Your task to perform on an android device: turn on notifications settings in the gmail app Image 0: 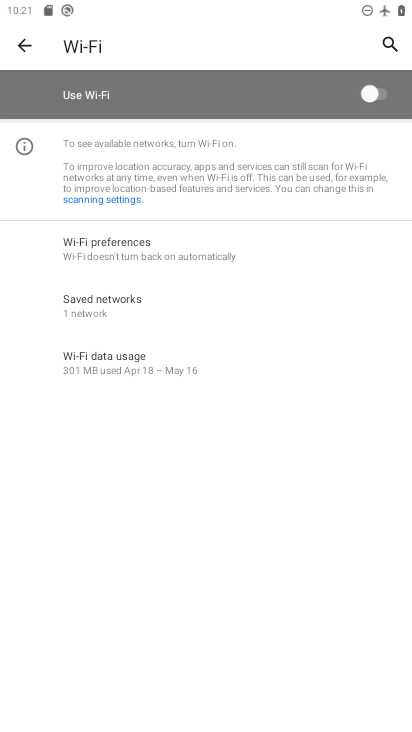
Step 0: press home button
Your task to perform on an android device: turn on notifications settings in the gmail app Image 1: 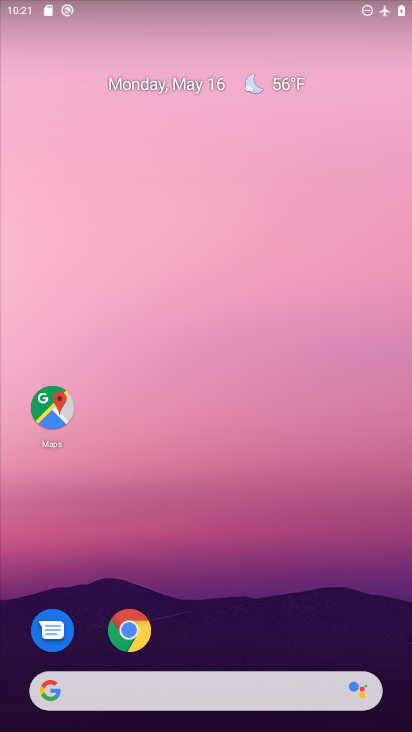
Step 1: drag from (194, 590) to (228, 28)
Your task to perform on an android device: turn on notifications settings in the gmail app Image 2: 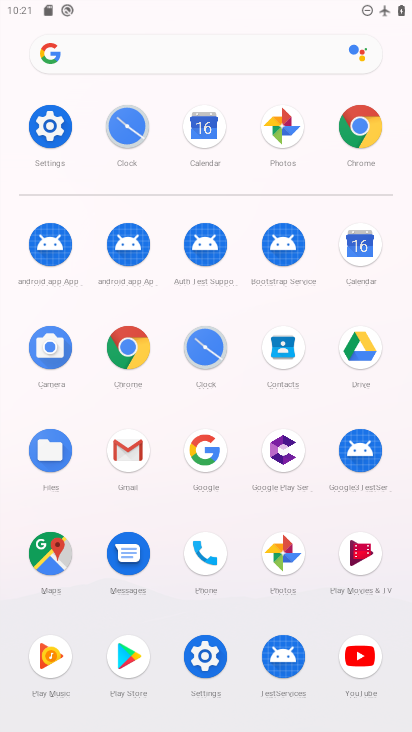
Step 2: click (131, 462)
Your task to perform on an android device: turn on notifications settings in the gmail app Image 3: 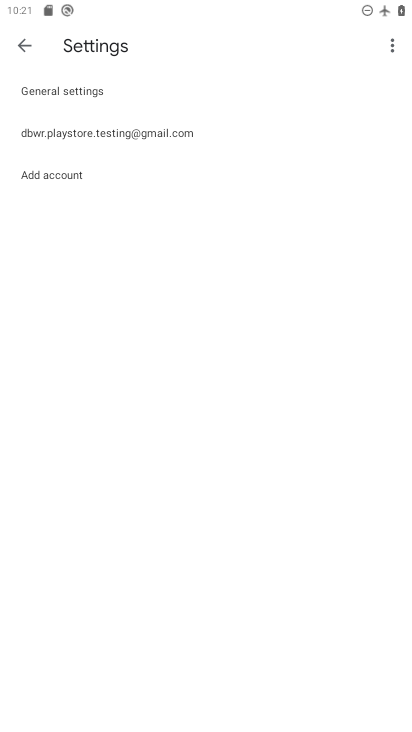
Step 3: click (59, 92)
Your task to perform on an android device: turn on notifications settings in the gmail app Image 4: 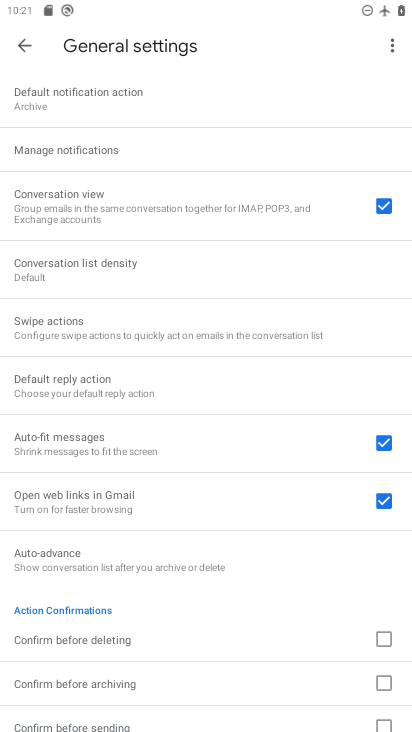
Step 4: click (70, 147)
Your task to perform on an android device: turn on notifications settings in the gmail app Image 5: 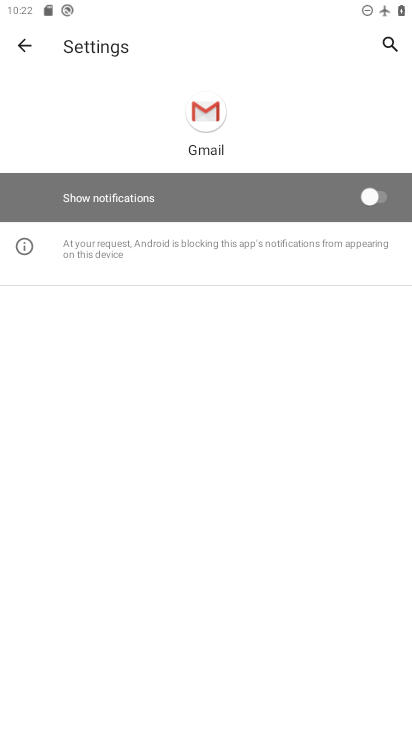
Step 5: task complete